Your task to perform on an android device: What's the weather? Image 0: 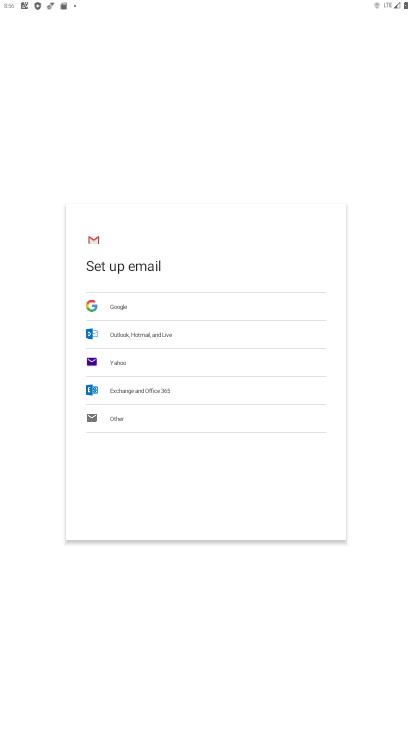
Step 0: press home button
Your task to perform on an android device: What's the weather? Image 1: 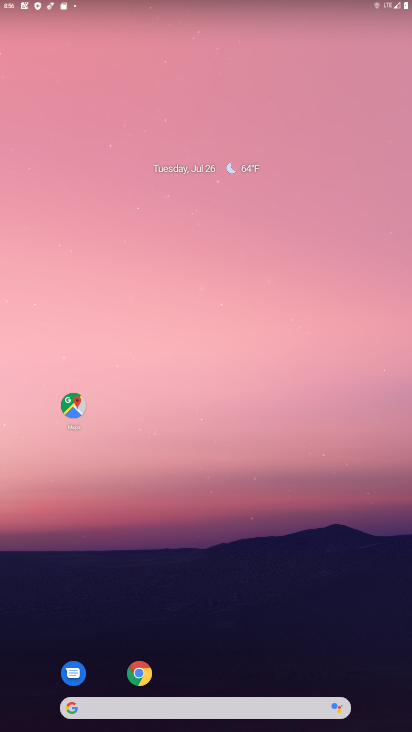
Step 1: drag from (227, 684) to (356, 104)
Your task to perform on an android device: What's the weather? Image 2: 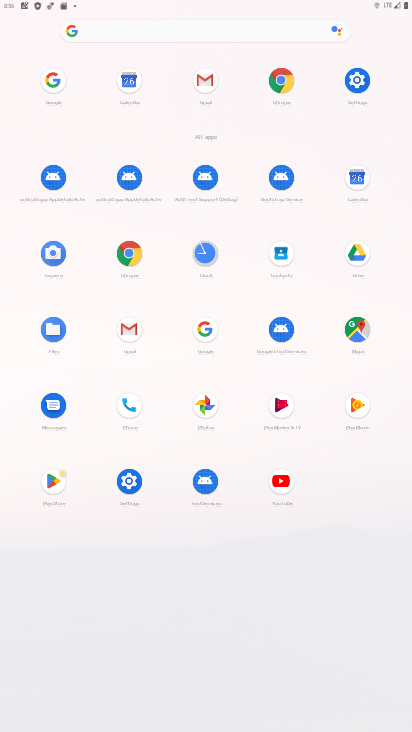
Step 2: click (137, 252)
Your task to perform on an android device: What's the weather? Image 3: 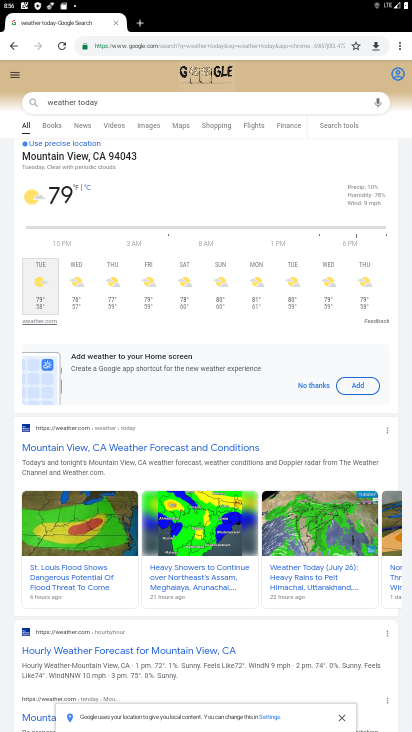
Step 3: click (188, 48)
Your task to perform on an android device: What's the weather? Image 4: 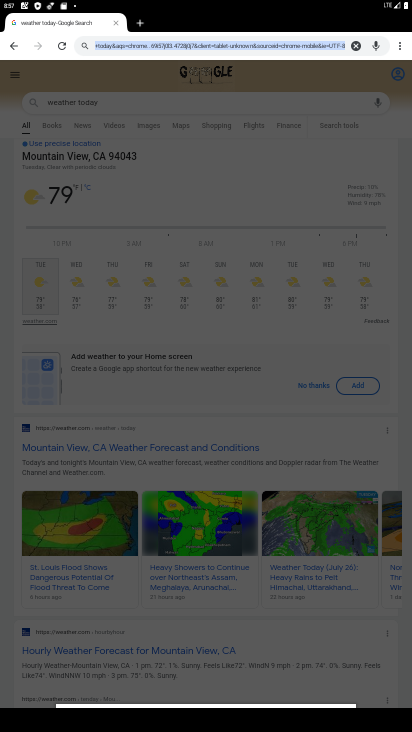
Step 4: type "whats the weather"
Your task to perform on an android device: What's the weather? Image 5: 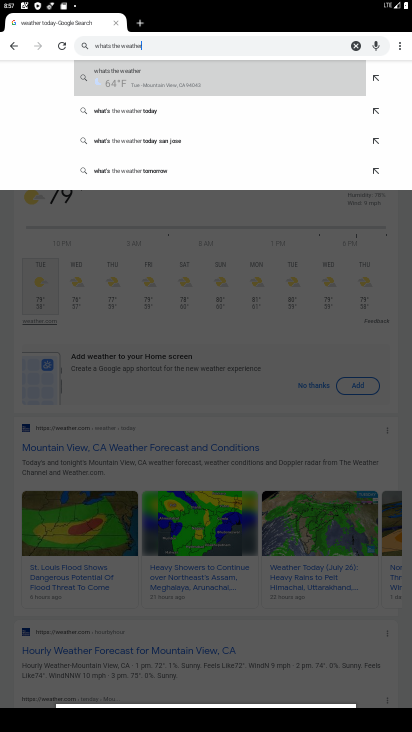
Step 5: click (153, 76)
Your task to perform on an android device: What's the weather? Image 6: 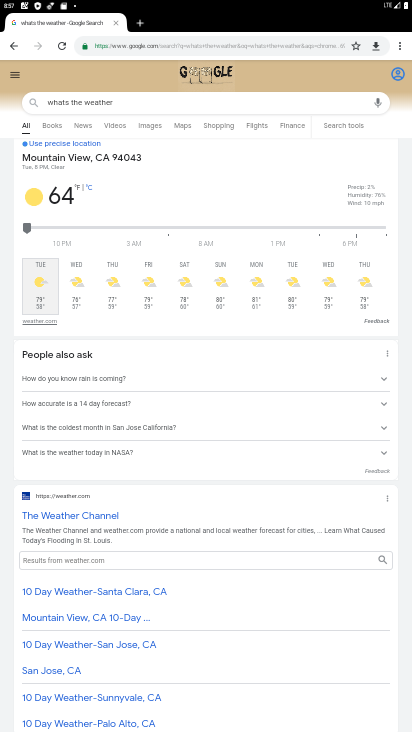
Step 6: task complete